Your task to perform on an android device: Search for Italian restaurants on Maps Image 0: 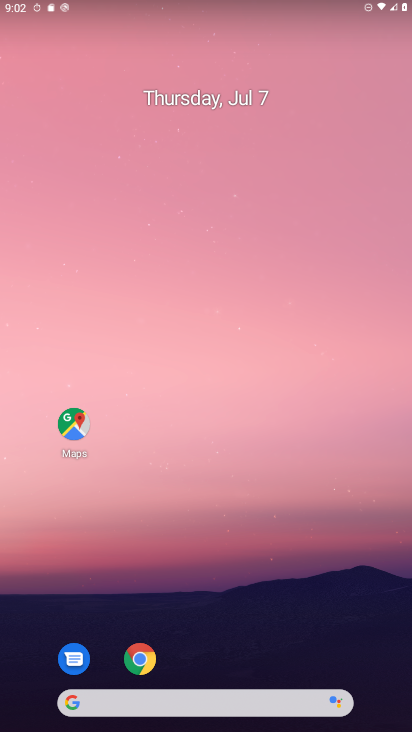
Step 0: drag from (360, 677) to (198, 2)
Your task to perform on an android device: Search for Italian restaurants on Maps Image 1: 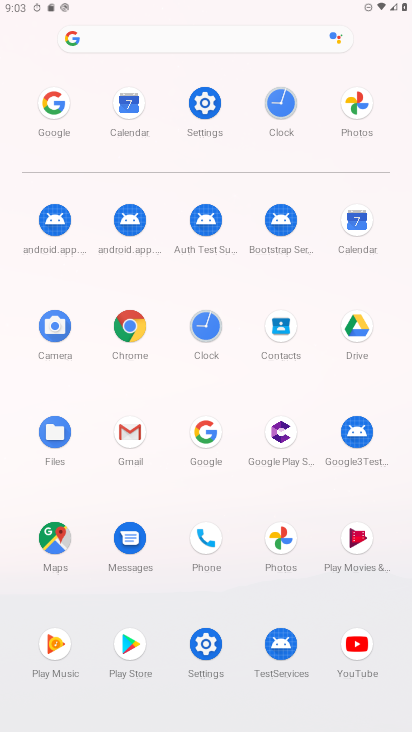
Step 1: click (50, 536)
Your task to perform on an android device: Search for Italian restaurants on Maps Image 2: 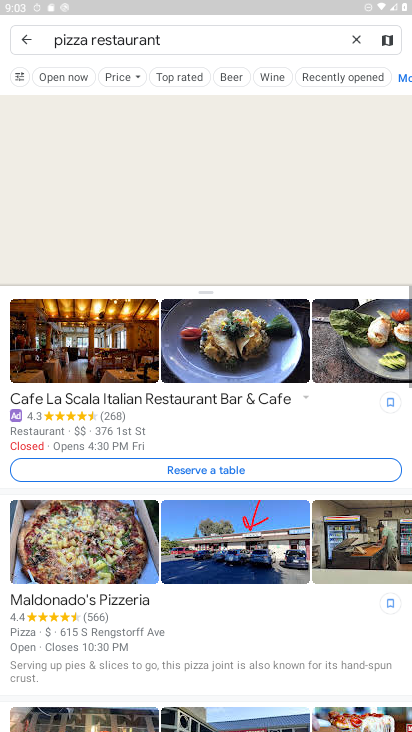
Step 2: click (356, 37)
Your task to perform on an android device: Search for Italian restaurants on Maps Image 3: 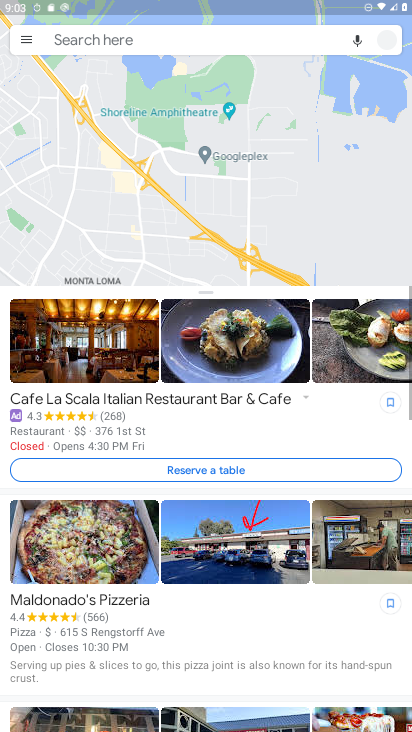
Step 3: click (119, 42)
Your task to perform on an android device: Search for Italian restaurants on Maps Image 4: 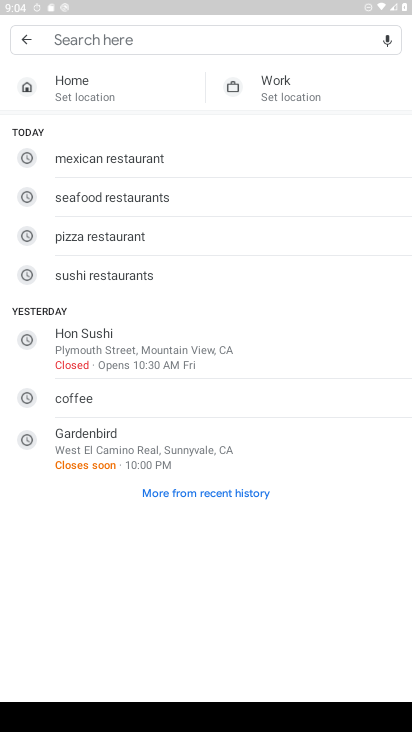
Step 4: type "Italian restaurants"
Your task to perform on an android device: Search for Italian restaurants on Maps Image 5: 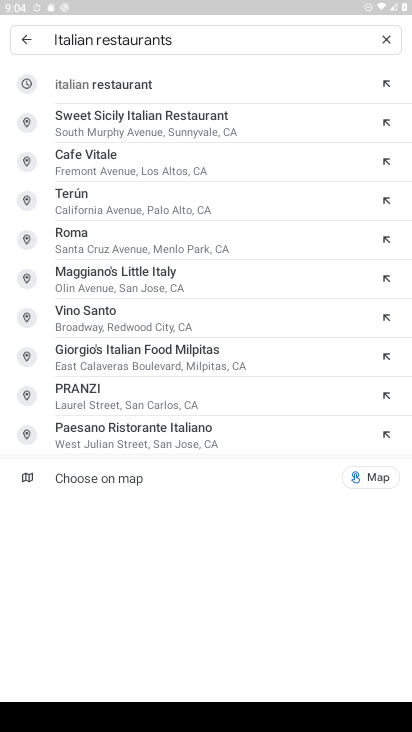
Step 5: click (102, 95)
Your task to perform on an android device: Search for Italian restaurants on Maps Image 6: 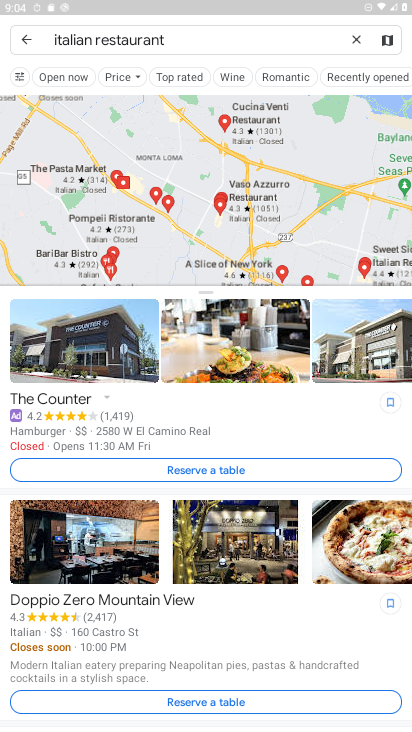
Step 6: task complete